Your task to perform on an android device: all mails in gmail Image 0: 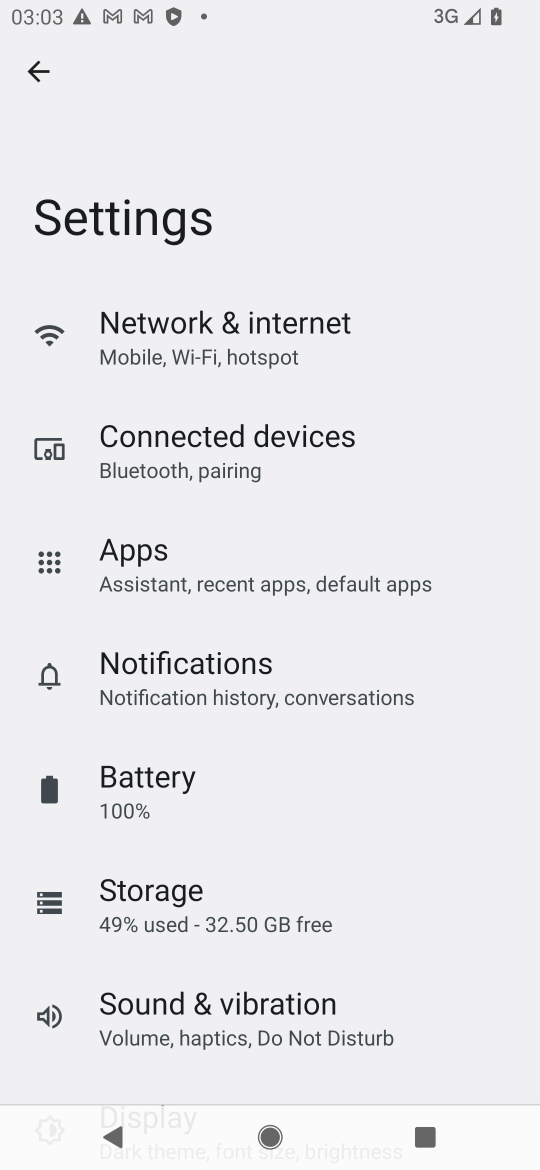
Step 0: press home button
Your task to perform on an android device: all mails in gmail Image 1: 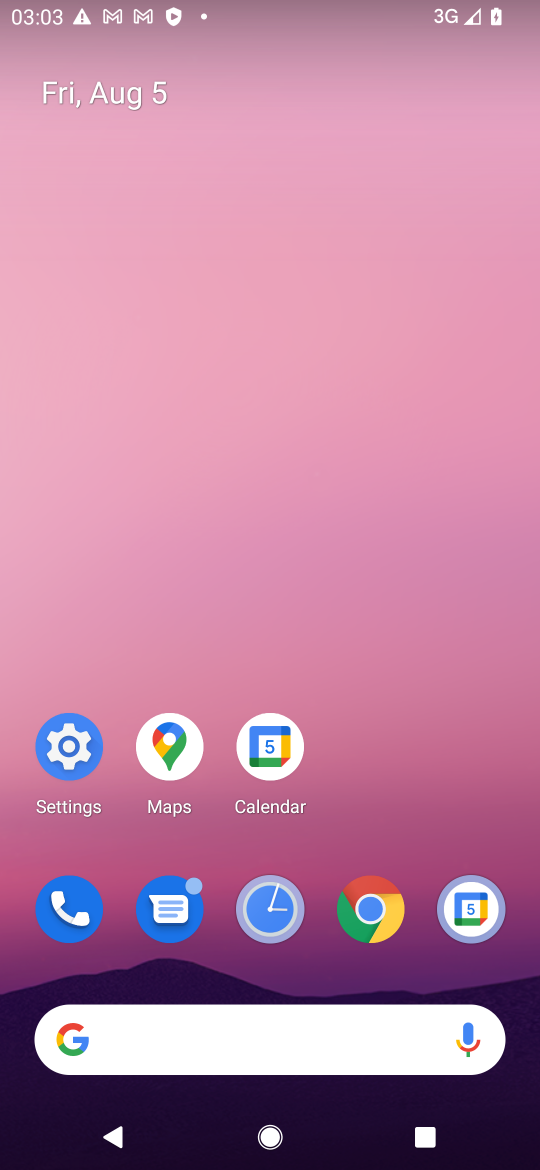
Step 1: drag from (385, 771) to (320, 169)
Your task to perform on an android device: all mails in gmail Image 2: 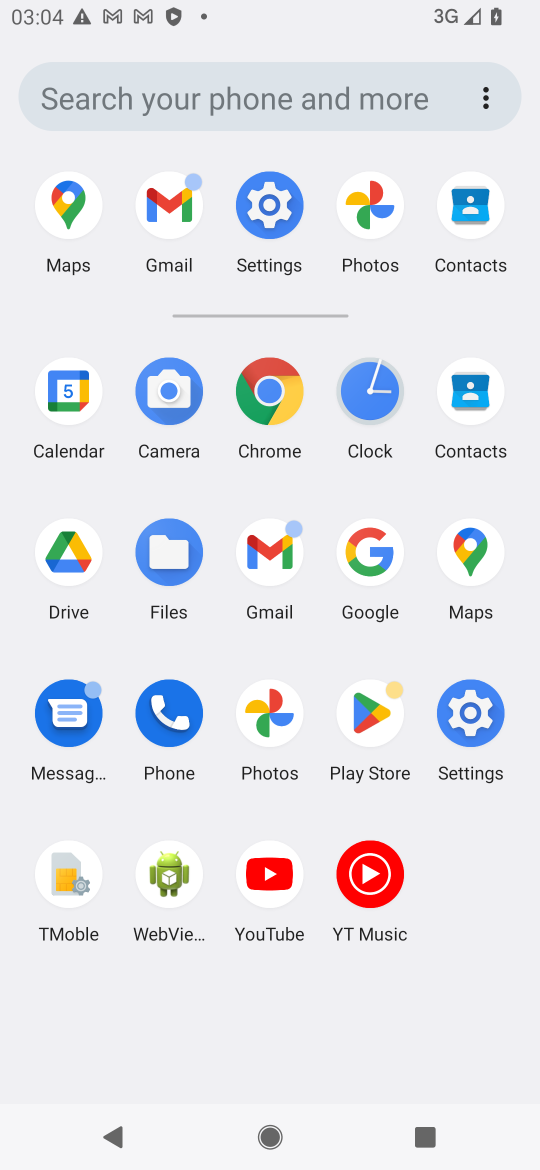
Step 2: click (166, 197)
Your task to perform on an android device: all mails in gmail Image 3: 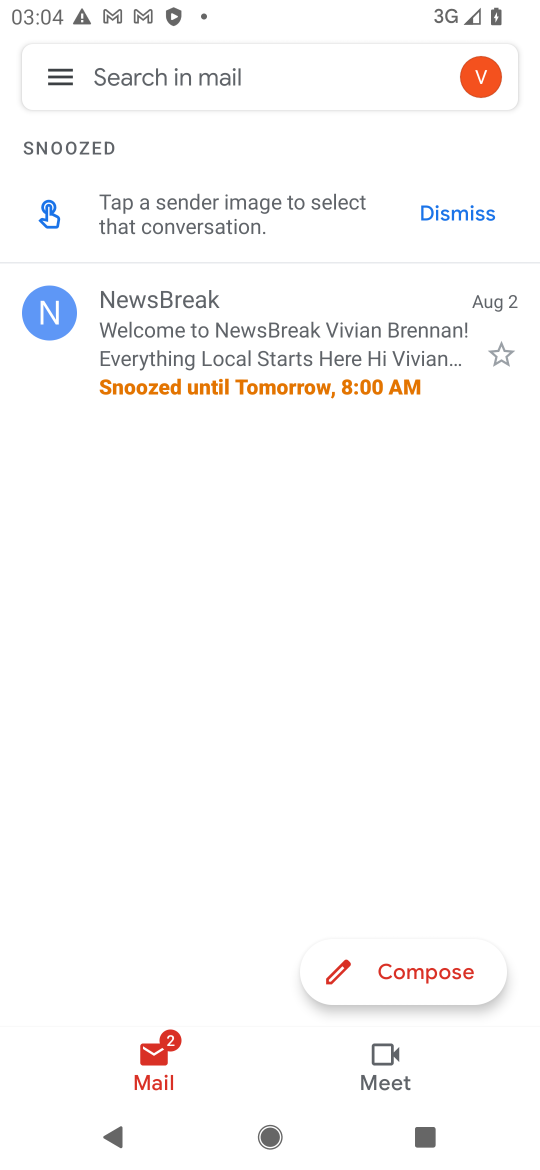
Step 3: click (54, 69)
Your task to perform on an android device: all mails in gmail Image 4: 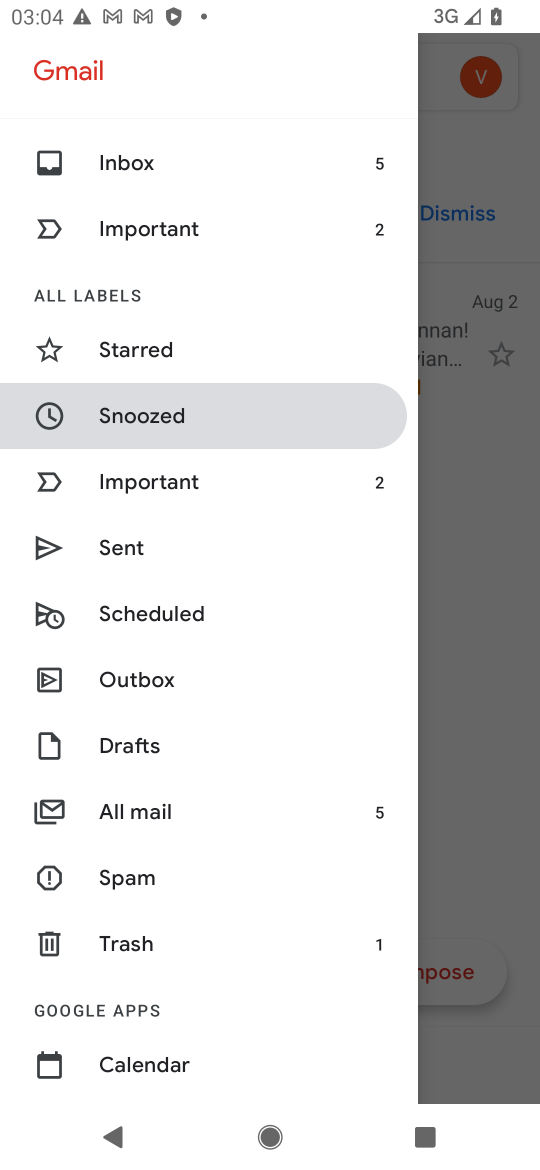
Step 4: click (162, 807)
Your task to perform on an android device: all mails in gmail Image 5: 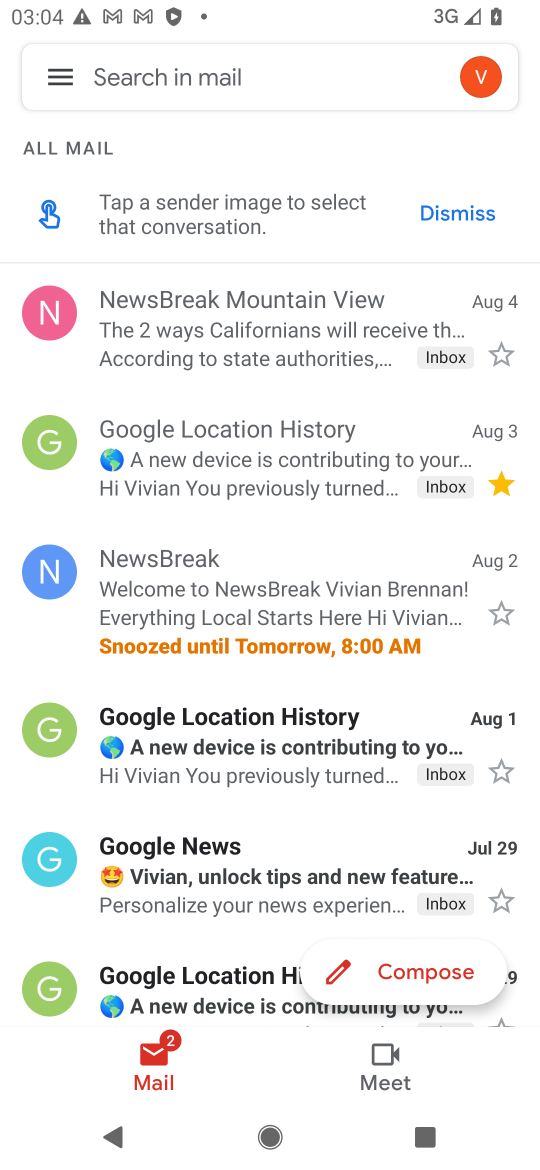
Step 5: task complete